Your task to perform on an android device: turn on javascript in the chrome app Image 0: 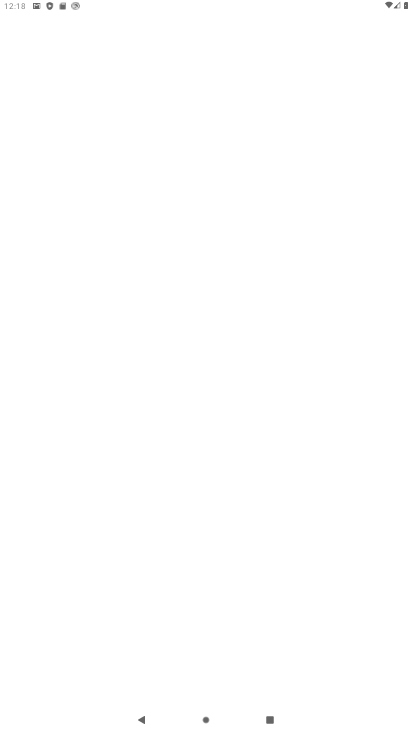
Step 0: press home button
Your task to perform on an android device: turn on javascript in the chrome app Image 1: 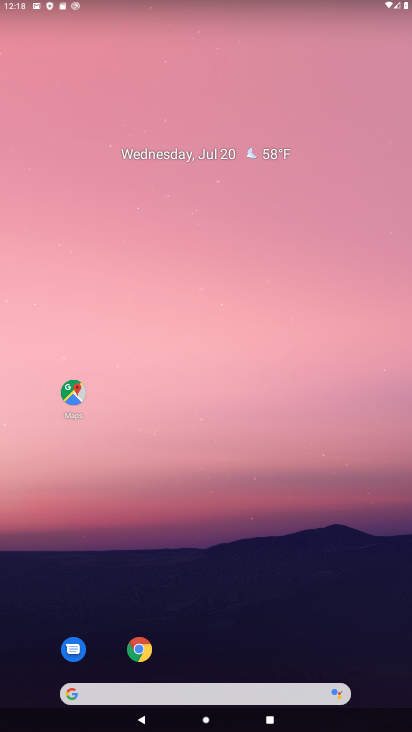
Step 1: click (139, 648)
Your task to perform on an android device: turn on javascript in the chrome app Image 2: 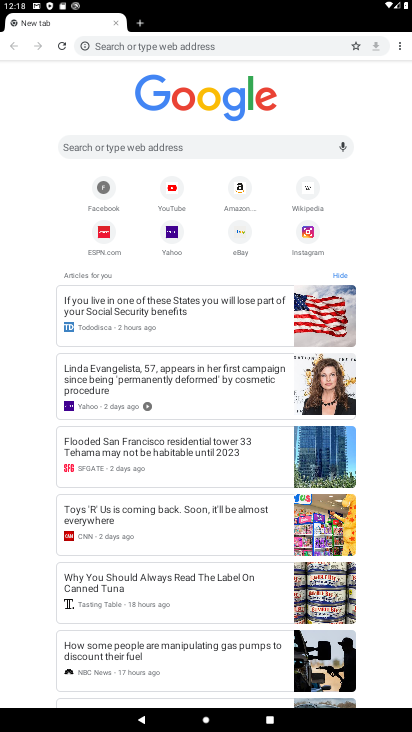
Step 2: click (398, 44)
Your task to perform on an android device: turn on javascript in the chrome app Image 3: 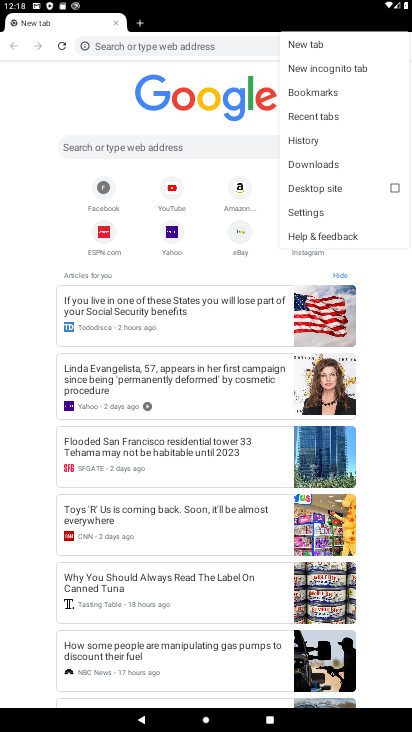
Step 3: click (303, 207)
Your task to perform on an android device: turn on javascript in the chrome app Image 4: 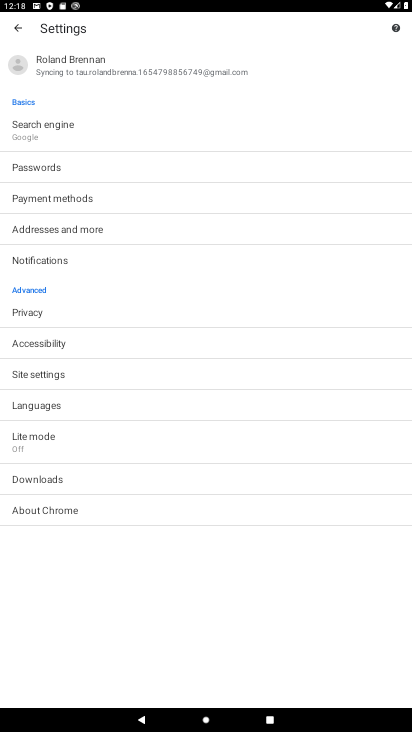
Step 4: click (43, 378)
Your task to perform on an android device: turn on javascript in the chrome app Image 5: 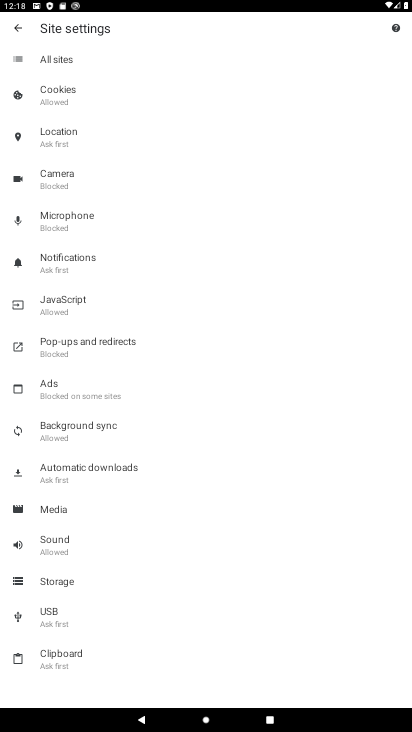
Step 5: click (72, 302)
Your task to perform on an android device: turn on javascript in the chrome app Image 6: 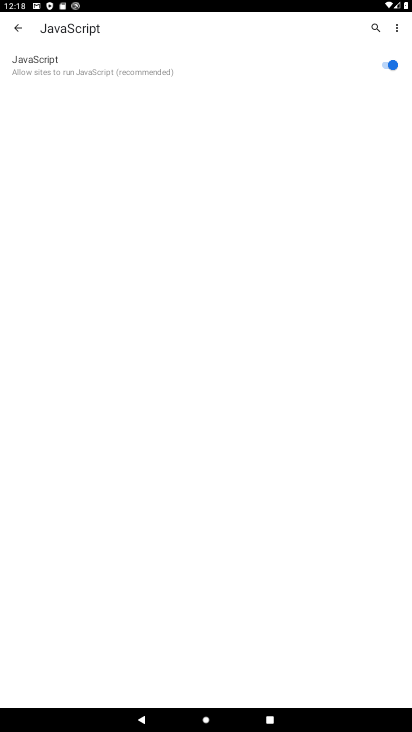
Step 6: task complete